Your task to perform on an android device: open device folders in google photos Image 0: 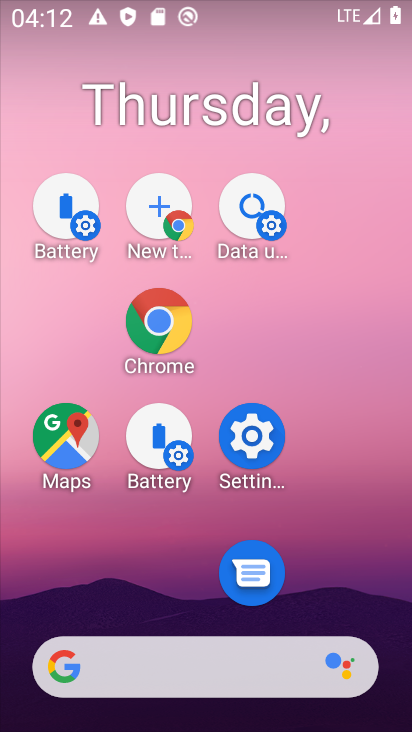
Step 0: drag from (207, 672) to (246, 284)
Your task to perform on an android device: open device folders in google photos Image 1: 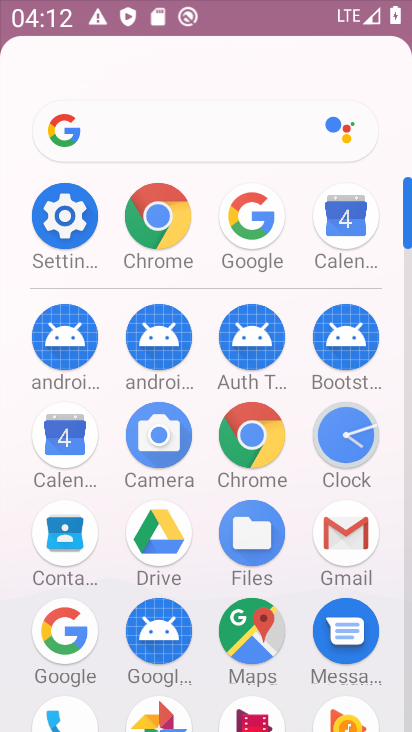
Step 1: drag from (215, 522) to (237, 188)
Your task to perform on an android device: open device folders in google photos Image 2: 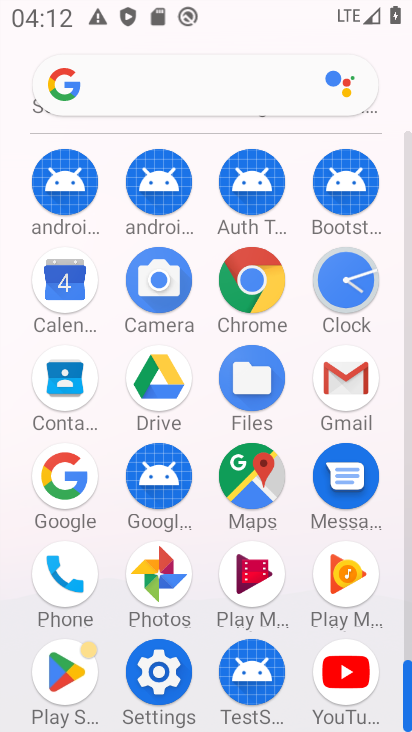
Step 2: click (156, 577)
Your task to perform on an android device: open device folders in google photos Image 3: 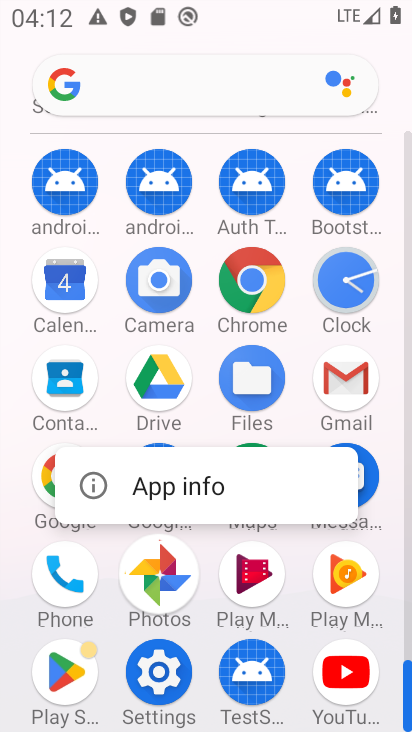
Step 3: click (156, 577)
Your task to perform on an android device: open device folders in google photos Image 4: 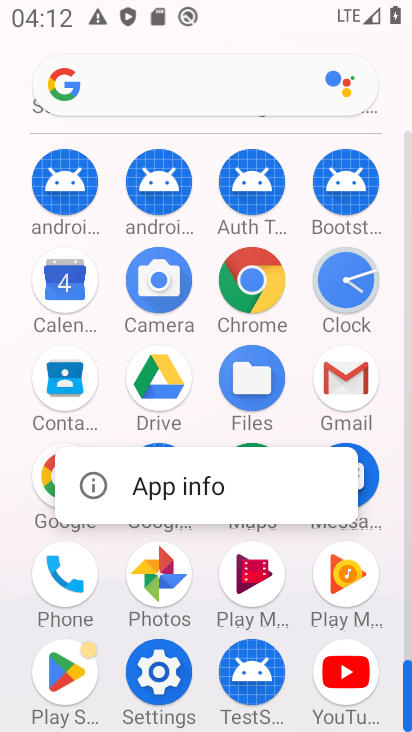
Step 4: click (162, 579)
Your task to perform on an android device: open device folders in google photos Image 5: 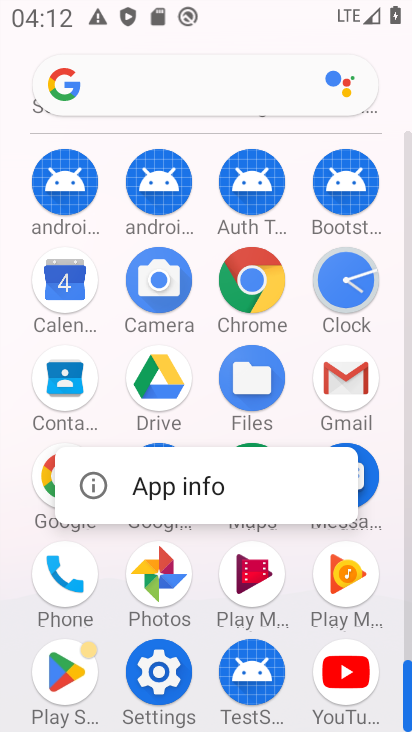
Step 5: click (166, 576)
Your task to perform on an android device: open device folders in google photos Image 6: 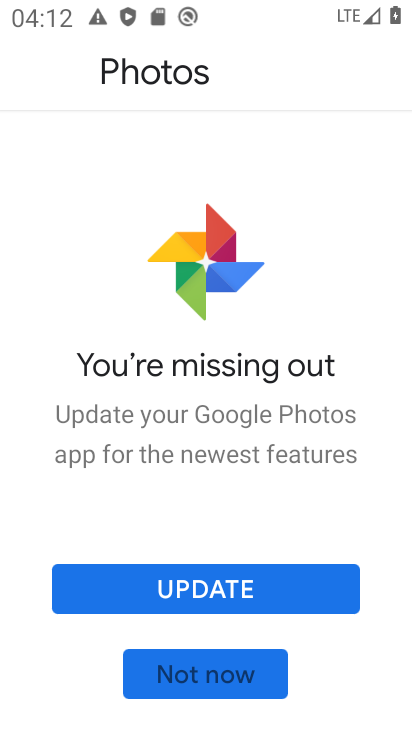
Step 6: click (215, 670)
Your task to perform on an android device: open device folders in google photos Image 7: 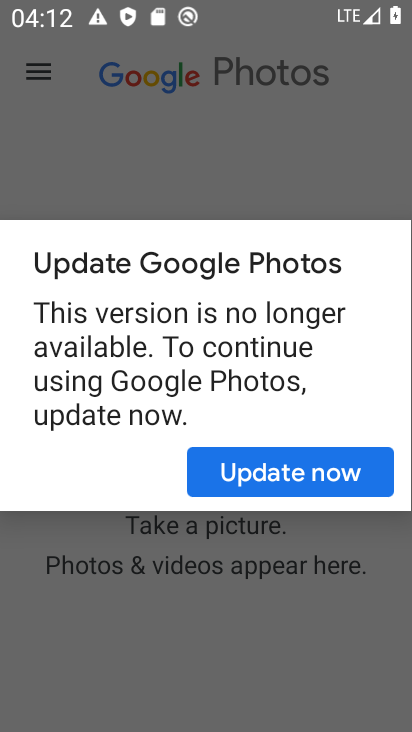
Step 7: click (296, 468)
Your task to perform on an android device: open device folders in google photos Image 8: 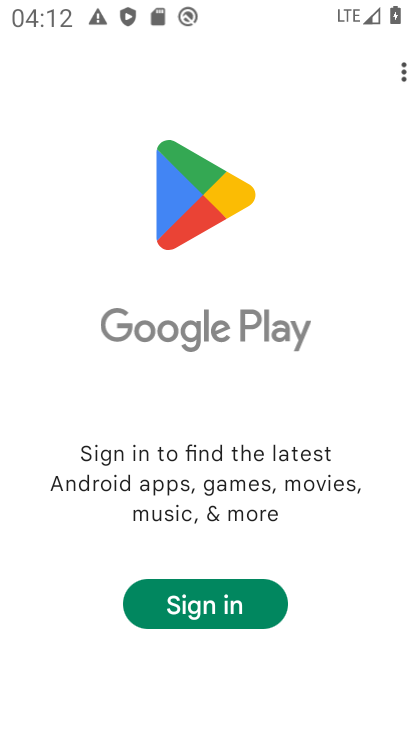
Step 8: task complete